Your task to perform on an android device: add a contact Image 0: 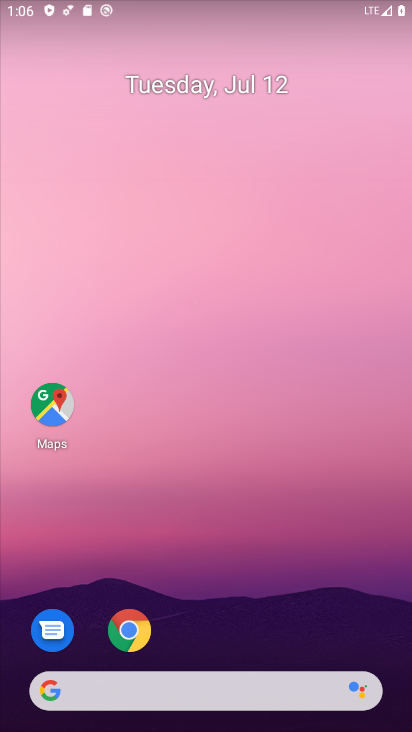
Step 0: drag from (387, 639) to (331, 134)
Your task to perform on an android device: add a contact Image 1: 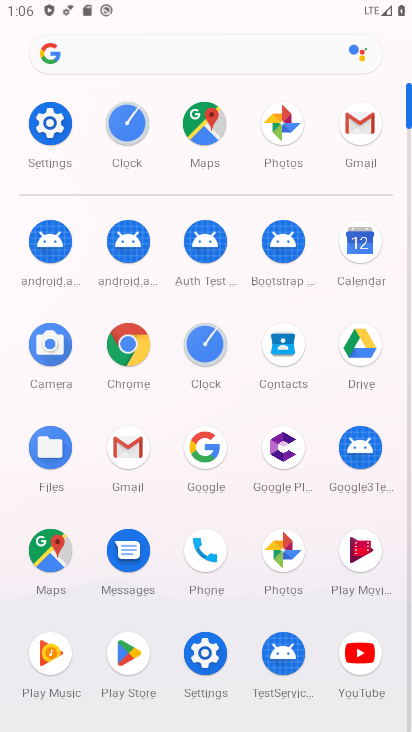
Step 1: click (281, 345)
Your task to perform on an android device: add a contact Image 2: 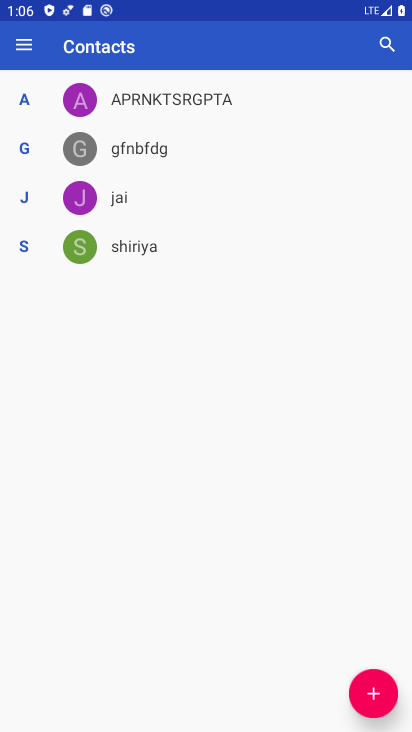
Step 2: click (372, 701)
Your task to perform on an android device: add a contact Image 3: 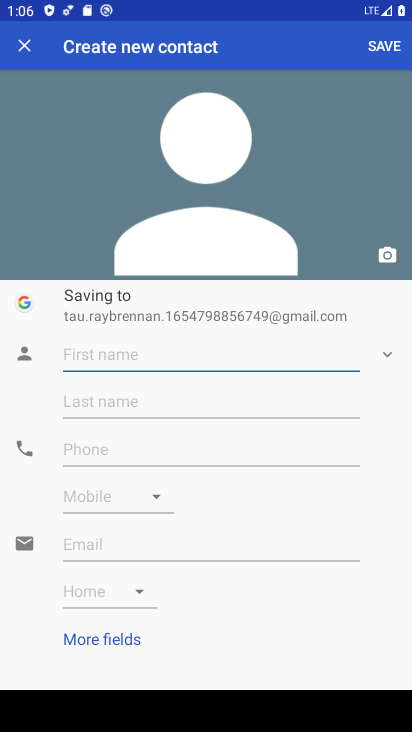
Step 3: type "khghftry"
Your task to perform on an android device: add a contact Image 4: 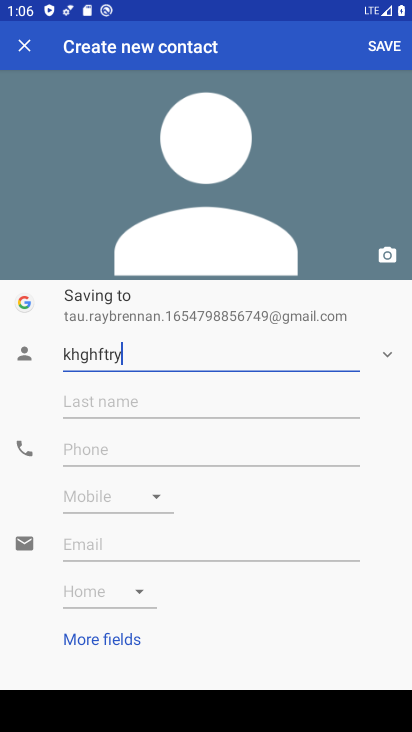
Step 4: click (96, 455)
Your task to perform on an android device: add a contact Image 5: 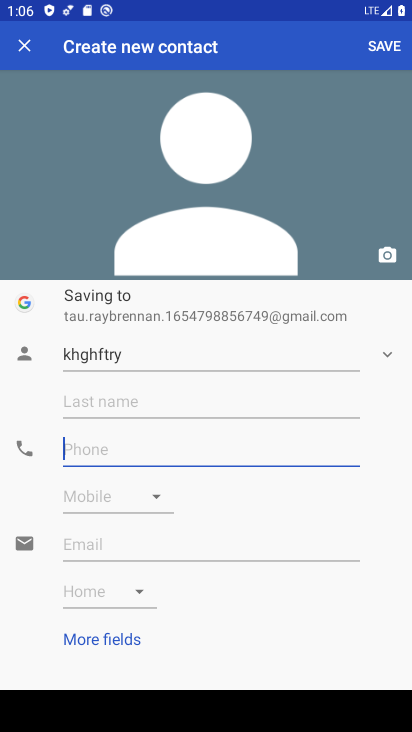
Step 5: type "98765459"
Your task to perform on an android device: add a contact Image 6: 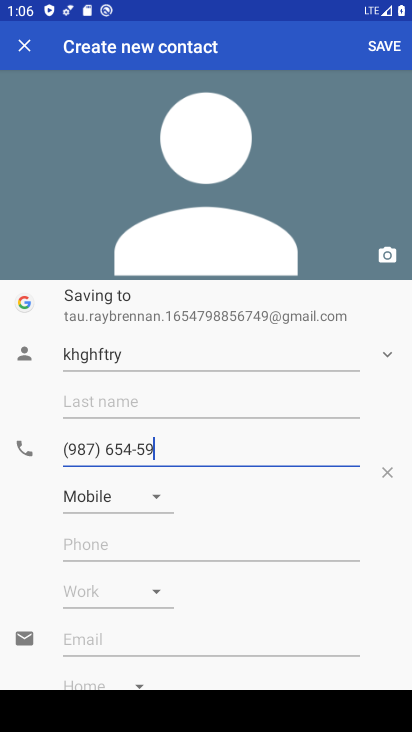
Step 6: click (380, 48)
Your task to perform on an android device: add a contact Image 7: 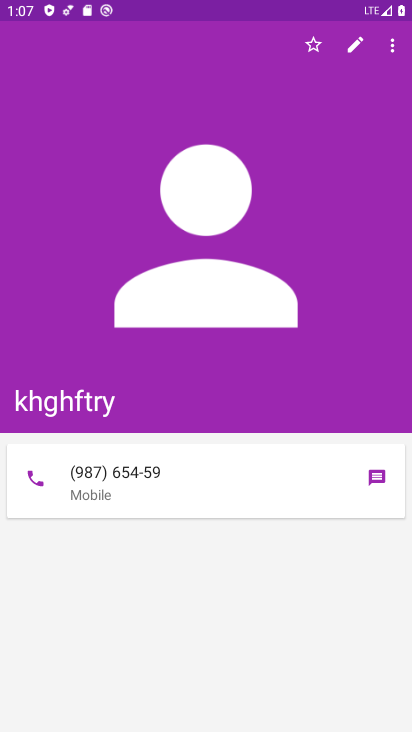
Step 7: task complete